Your task to perform on an android device: Search for Mexican restaurants on Maps Image 0: 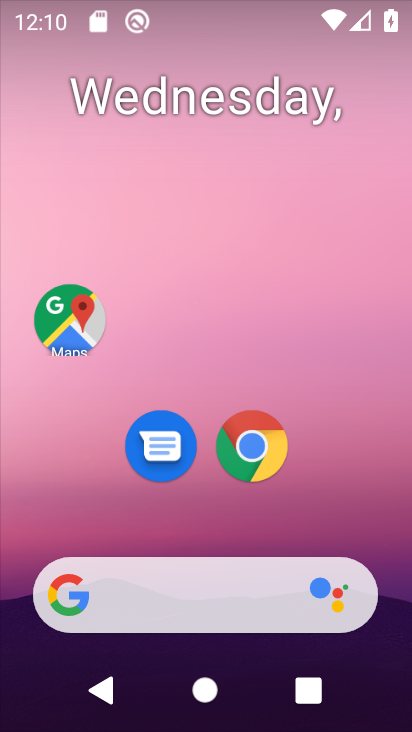
Step 0: click (69, 327)
Your task to perform on an android device: Search for Mexican restaurants on Maps Image 1: 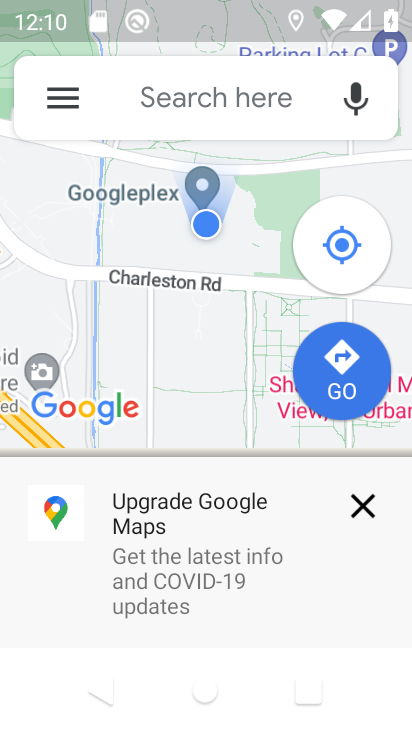
Step 1: click (143, 98)
Your task to perform on an android device: Search for Mexican restaurants on Maps Image 2: 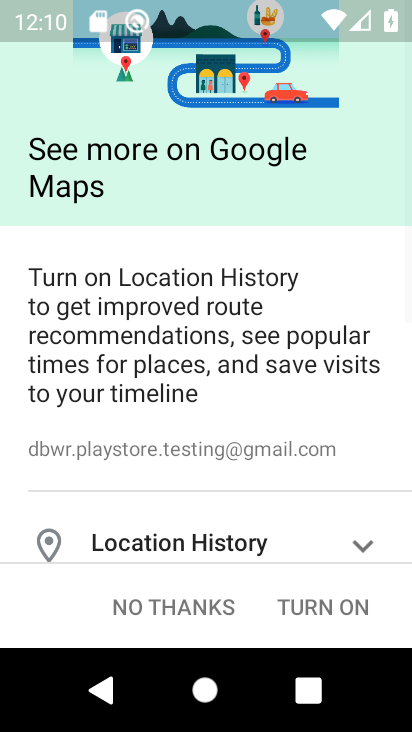
Step 2: click (155, 616)
Your task to perform on an android device: Search for Mexican restaurants on Maps Image 3: 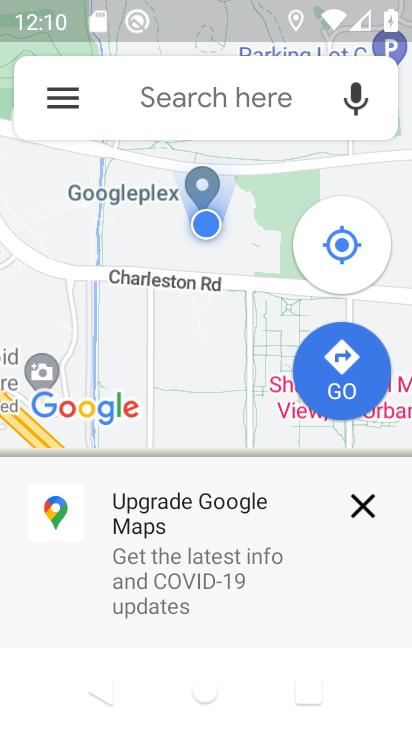
Step 3: click (145, 105)
Your task to perform on an android device: Search for Mexican restaurants on Maps Image 4: 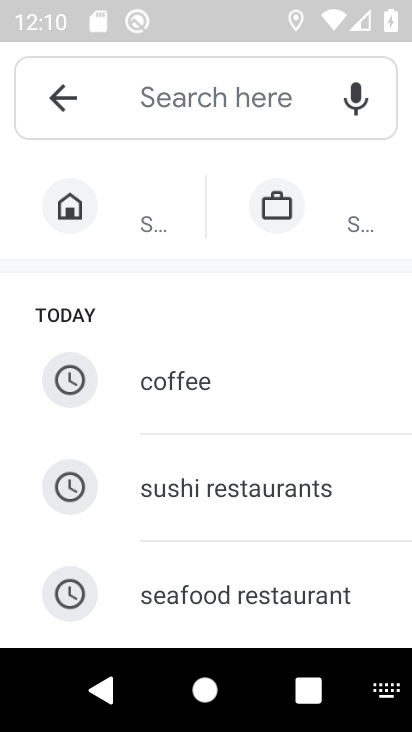
Step 4: type "mexican restaurant"
Your task to perform on an android device: Search for Mexican restaurants on Maps Image 5: 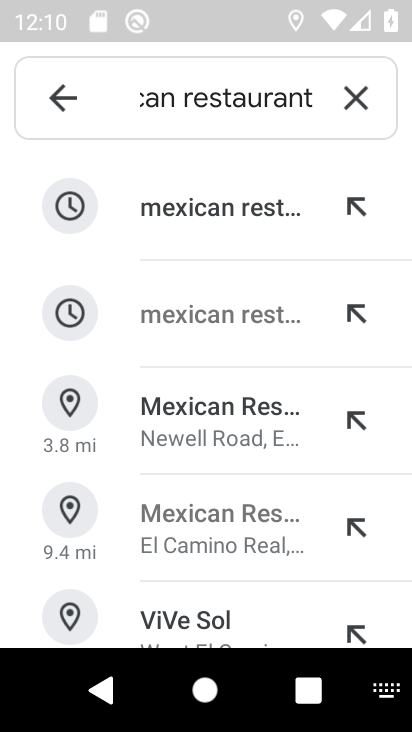
Step 5: click (199, 210)
Your task to perform on an android device: Search for Mexican restaurants on Maps Image 6: 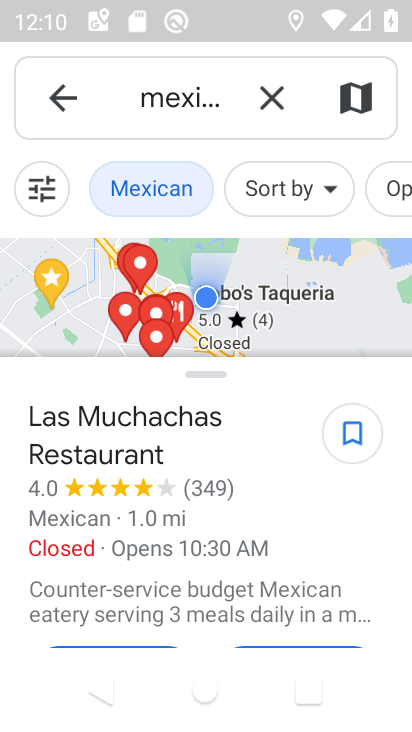
Step 6: task complete